Your task to perform on an android device: change notifications settings Image 0: 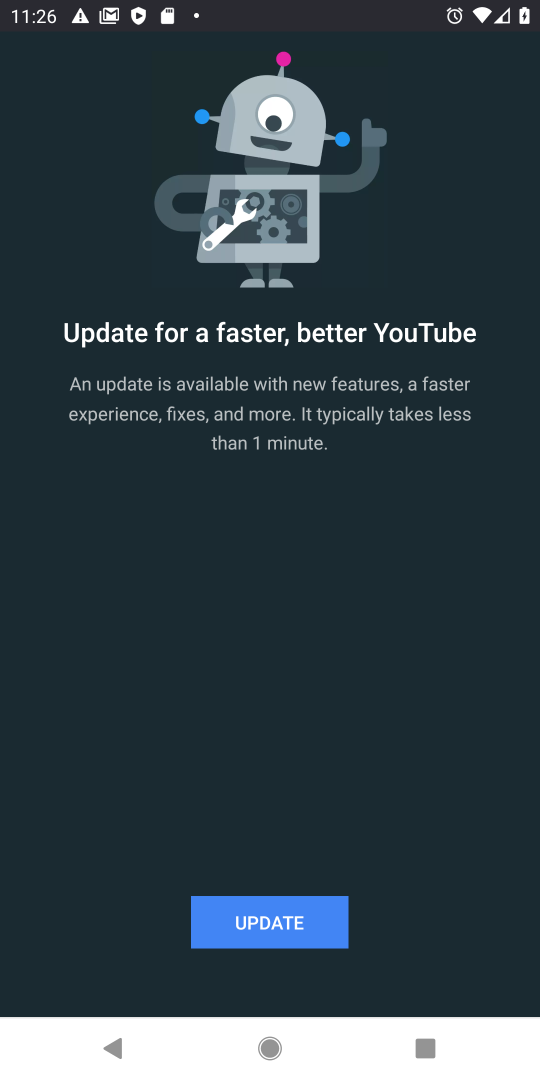
Step 0: press home button
Your task to perform on an android device: change notifications settings Image 1: 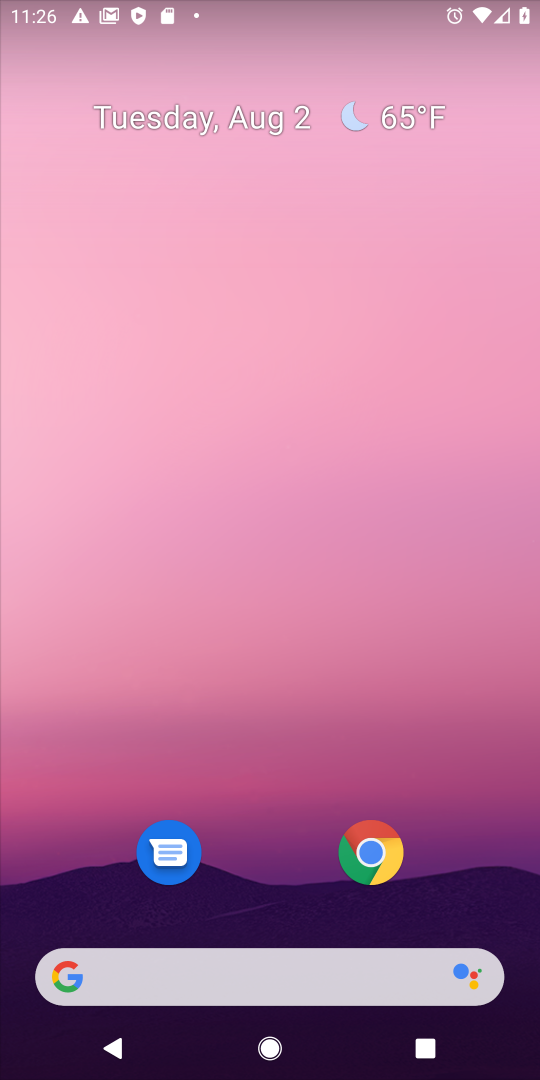
Step 1: drag from (85, 933) to (276, 79)
Your task to perform on an android device: change notifications settings Image 2: 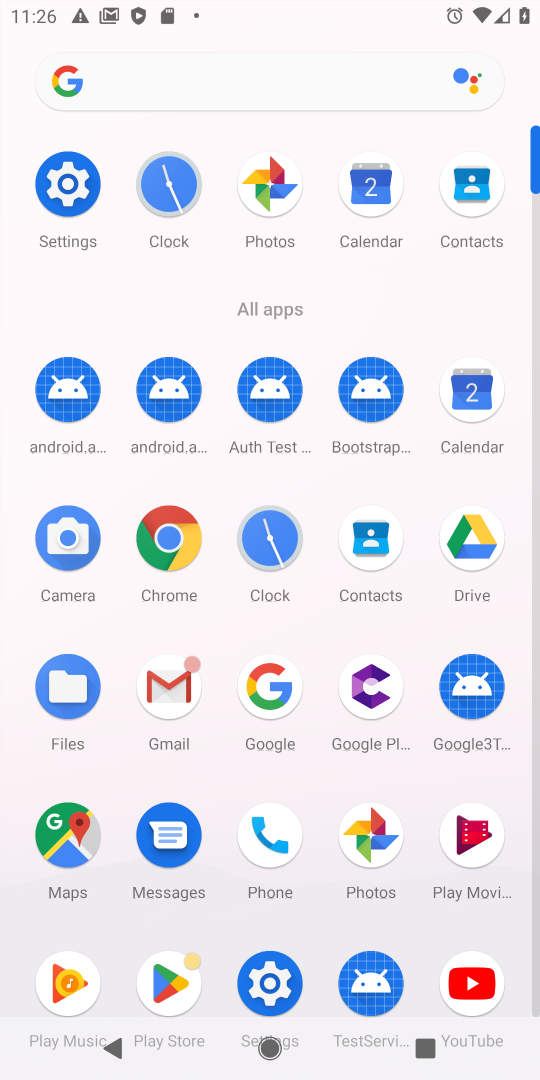
Step 2: click (261, 976)
Your task to perform on an android device: change notifications settings Image 3: 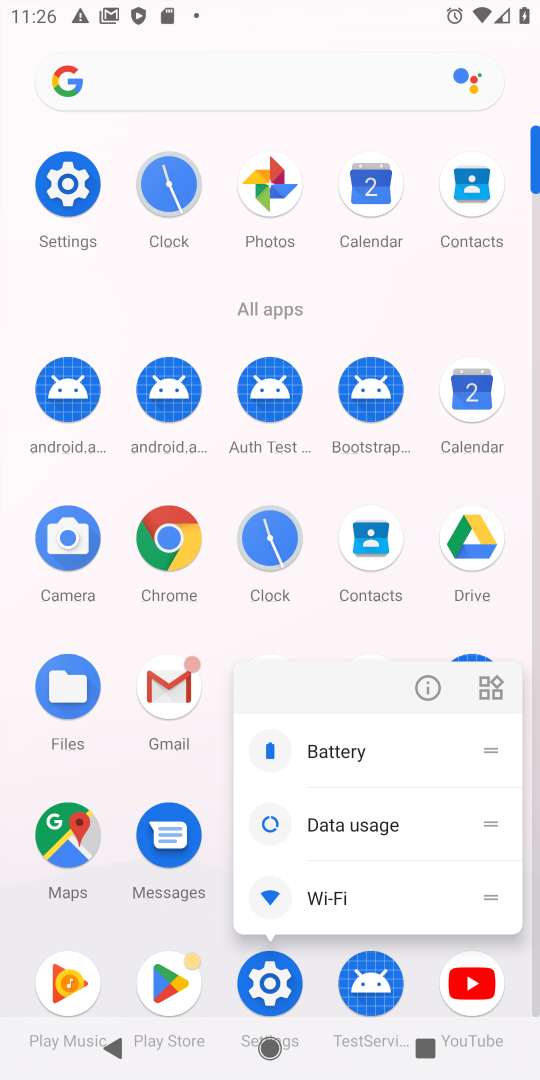
Step 3: click (285, 1004)
Your task to perform on an android device: change notifications settings Image 4: 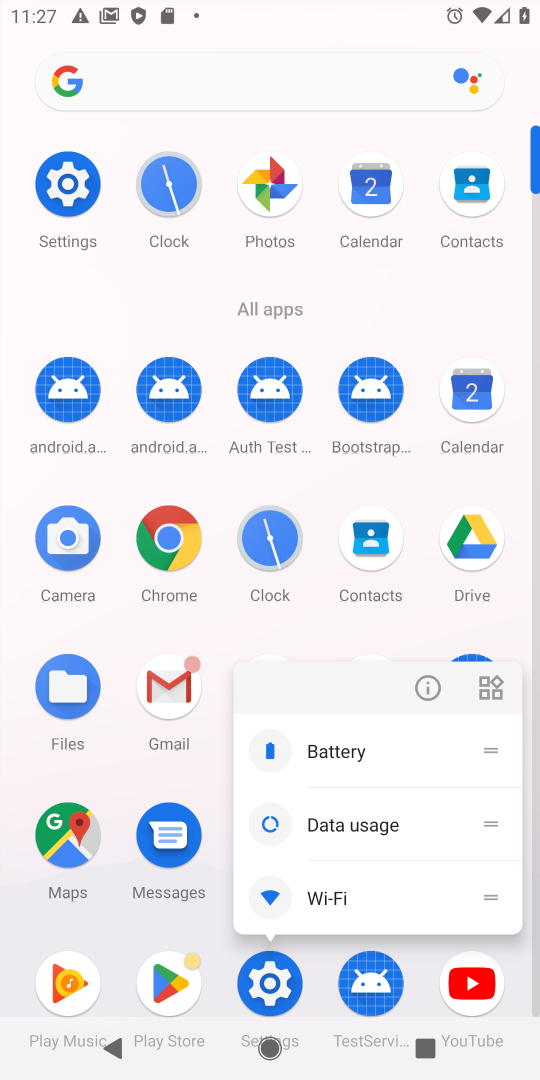
Step 4: click (275, 995)
Your task to perform on an android device: change notifications settings Image 5: 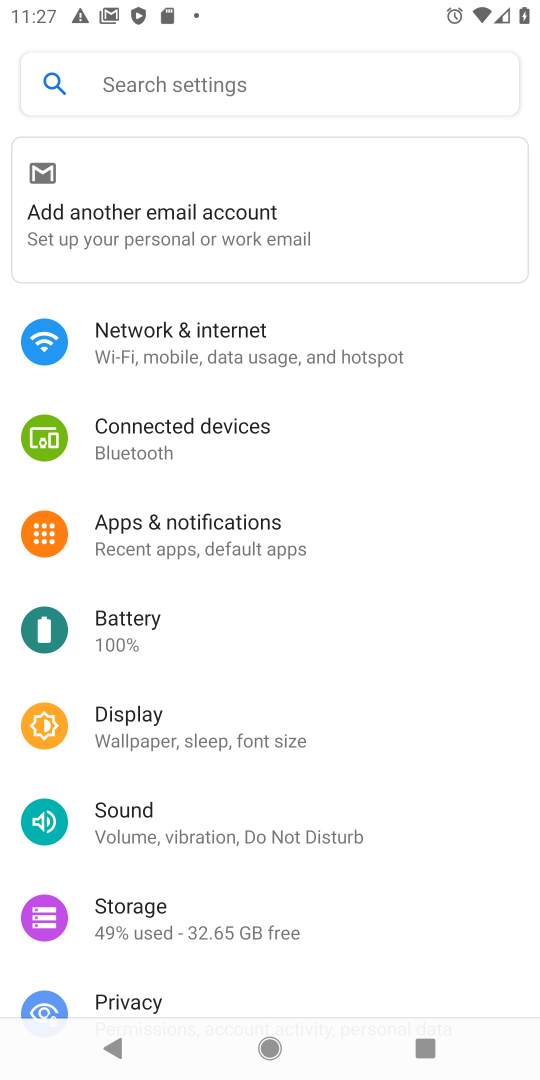
Step 5: click (128, 522)
Your task to perform on an android device: change notifications settings Image 6: 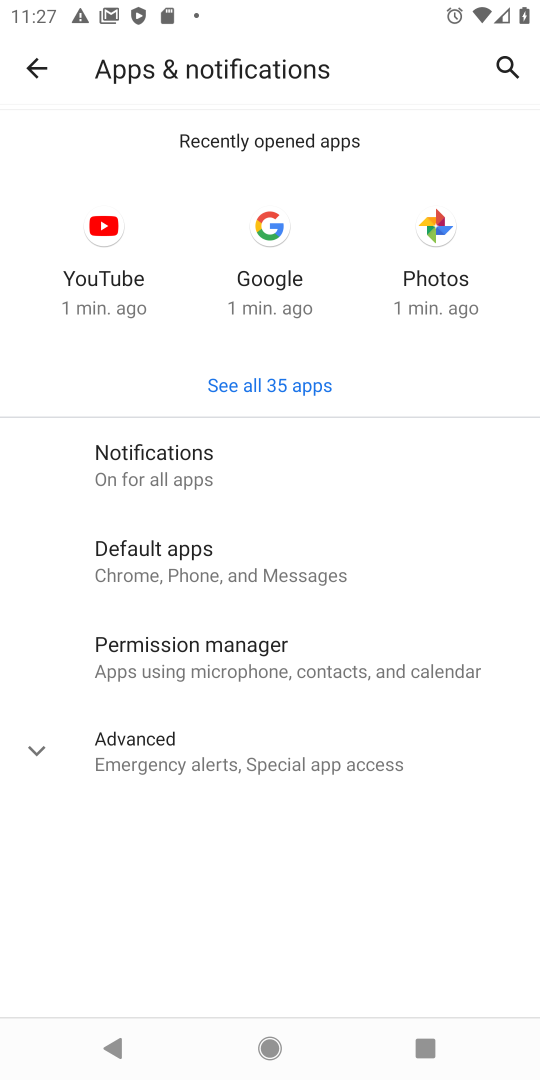
Step 6: task complete